Your task to perform on an android device: toggle notifications settings in the gmail app Image 0: 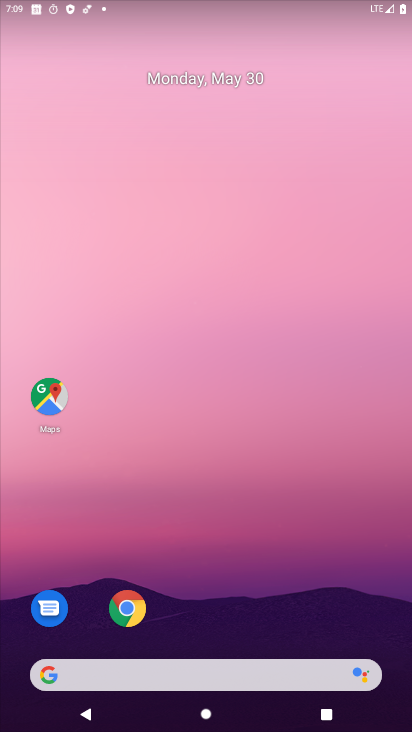
Step 0: drag from (222, 547) to (344, 161)
Your task to perform on an android device: toggle notifications settings in the gmail app Image 1: 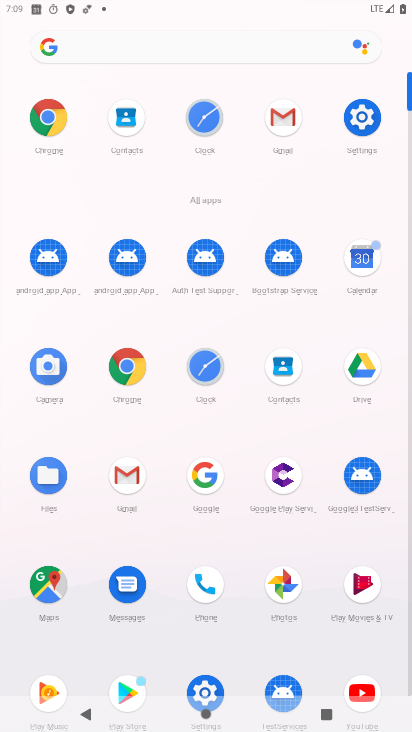
Step 1: click (132, 483)
Your task to perform on an android device: toggle notifications settings in the gmail app Image 2: 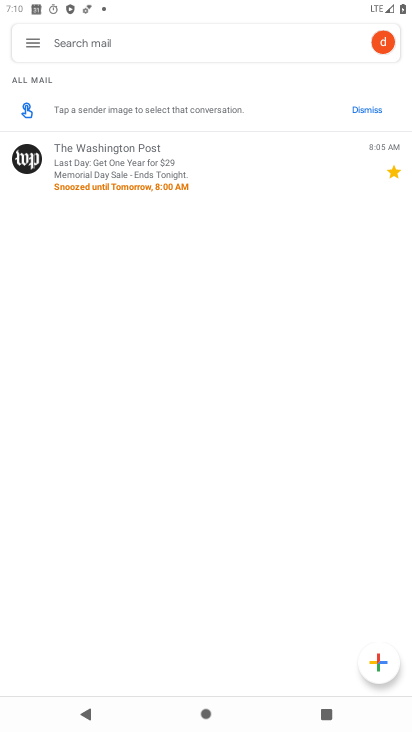
Step 2: click (33, 43)
Your task to perform on an android device: toggle notifications settings in the gmail app Image 3: 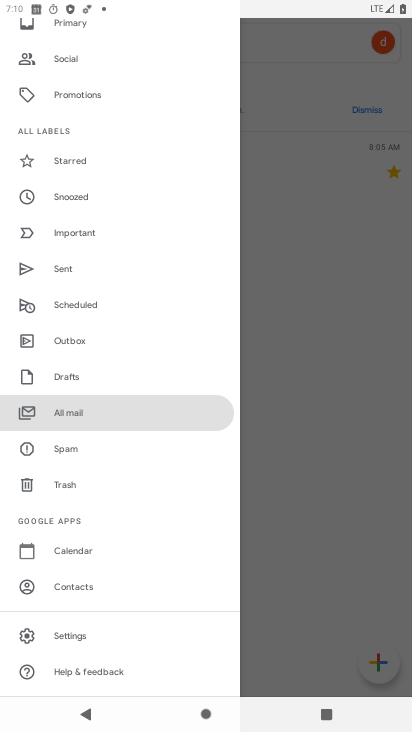
Step 3: click (76, 640)
Your task to perform on an android device: toggle notifications settings in the gmail app Image 4: 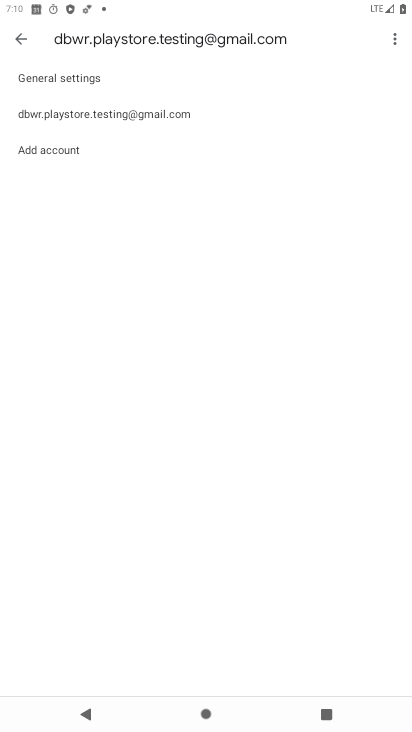
Step 4: click (179, 115)
Your task to perform on an android device: toggle notifications settings in the gmail app Image 5: 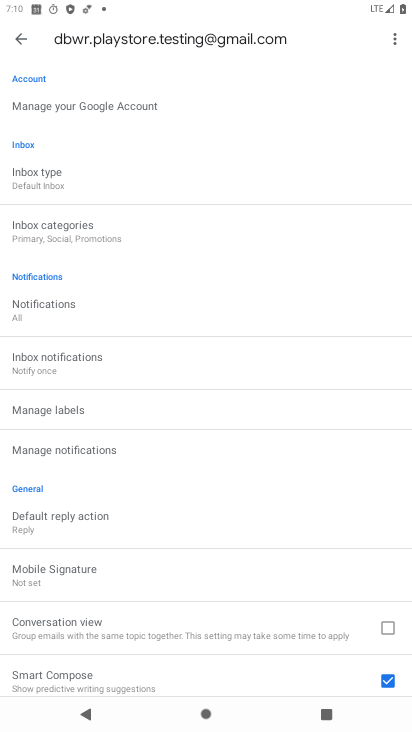
Step 5: click (67, 450)
Your task to perform on an android device: toggle notifications settings in the gmail app Image 6: 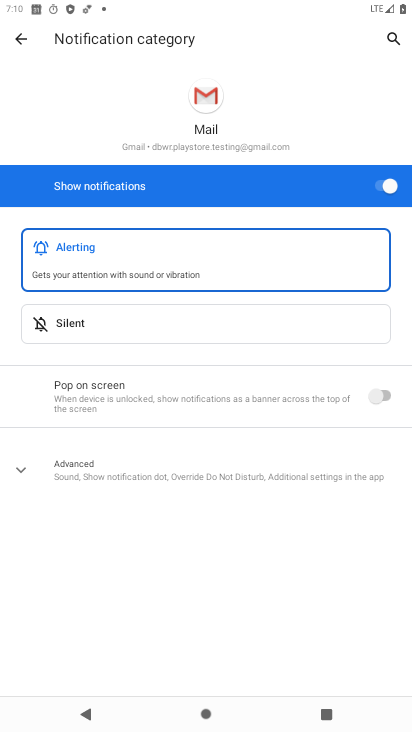
Step 6: click (379, 191)
Your task to perform on an android device: toggle notifications settings in the gmail app Image 7: 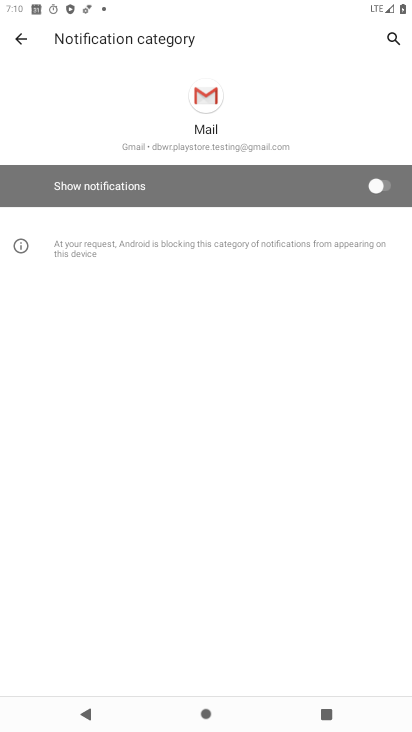
Step 7: task complete